Your task to perform on an android device: find photos in the google photos app Image 0: 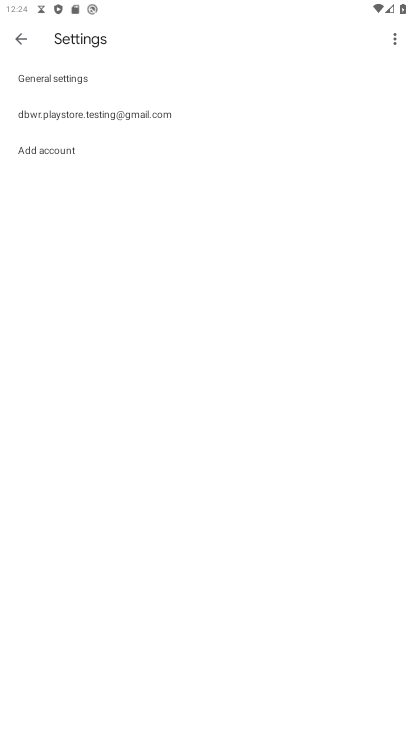
Step 0: press home button
Your task to perform on an android device: find photos in the google photos app Image 1: 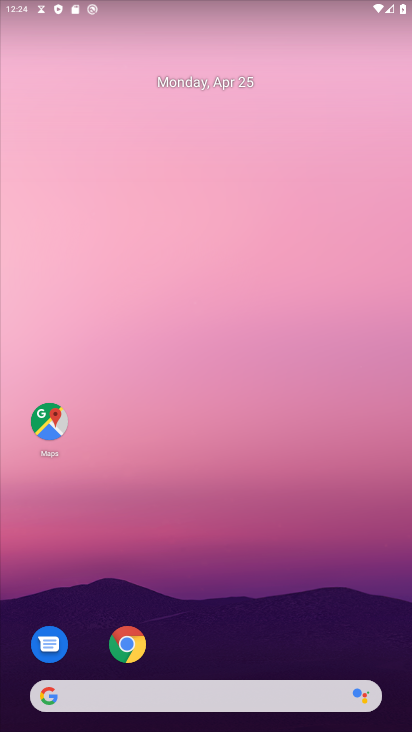
Step 1: drag from (376, 650) to (403, 5)
Your task to perform on an android device: find photos in the google photos app Image 2: 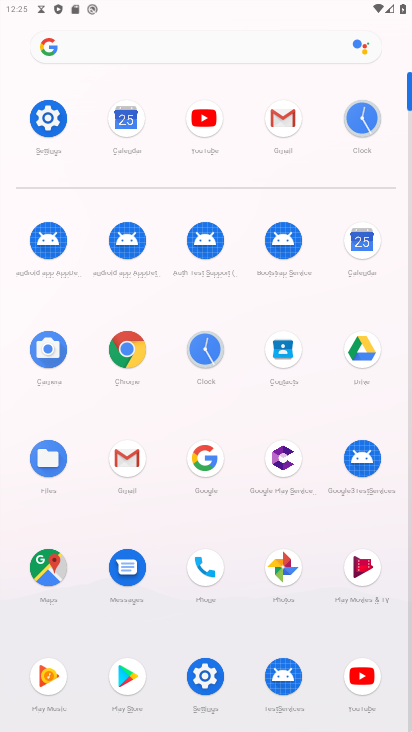
Step 2: click (281, 568)
Your task to perform on an android device: find photos in the google photos app Image 3: 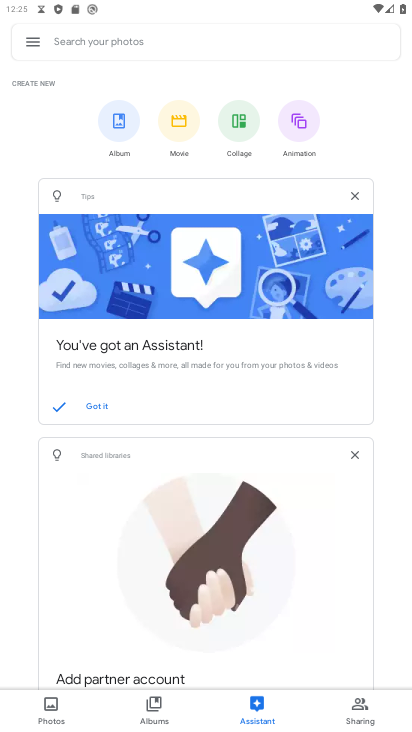
Step 3: click (42, 710)
Your task to perform on an android device: find photos in the google photos app Image 4: 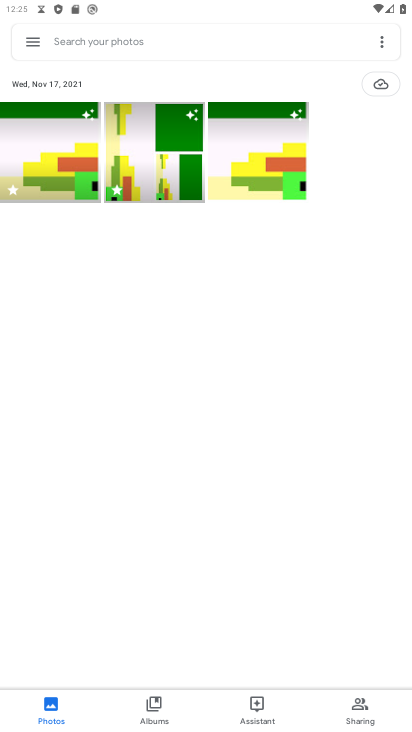
Step 4: task complete